Your task to perform on an android device: Go to Reddit.com Image 0: 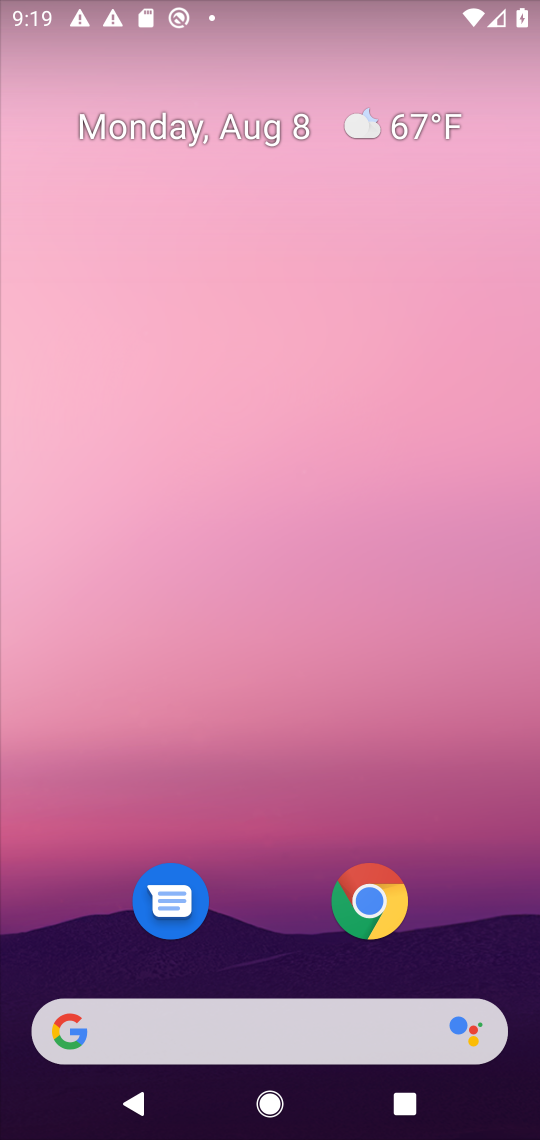
Step 0: click (377, 896)
Your task to perform on an android device: Go to Reddit.com Image 1: 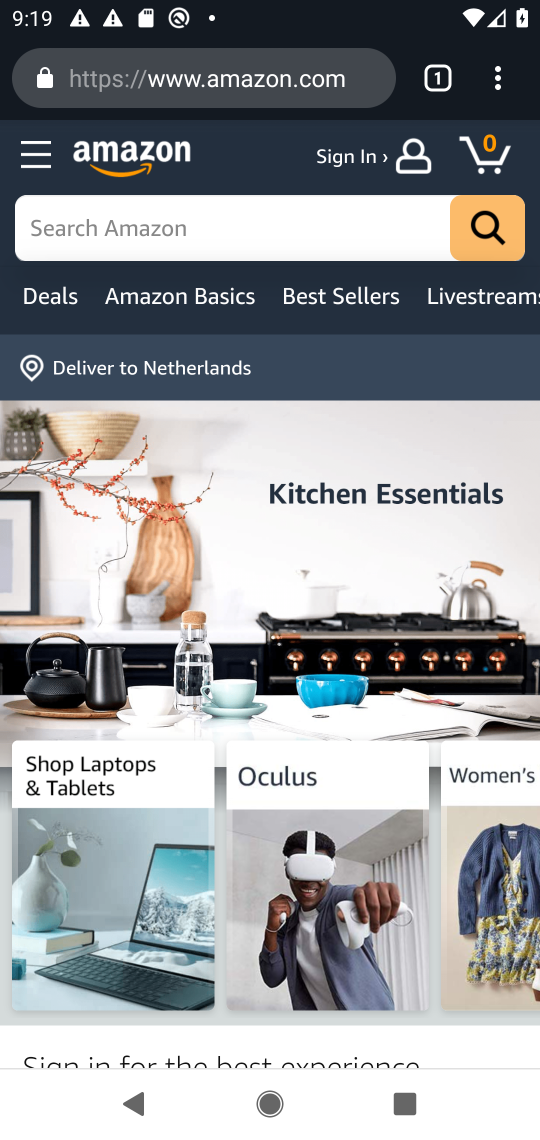
Step 1: click (229, 63)
Your task to perform on an android device: Go to Reddit.com Image 2: 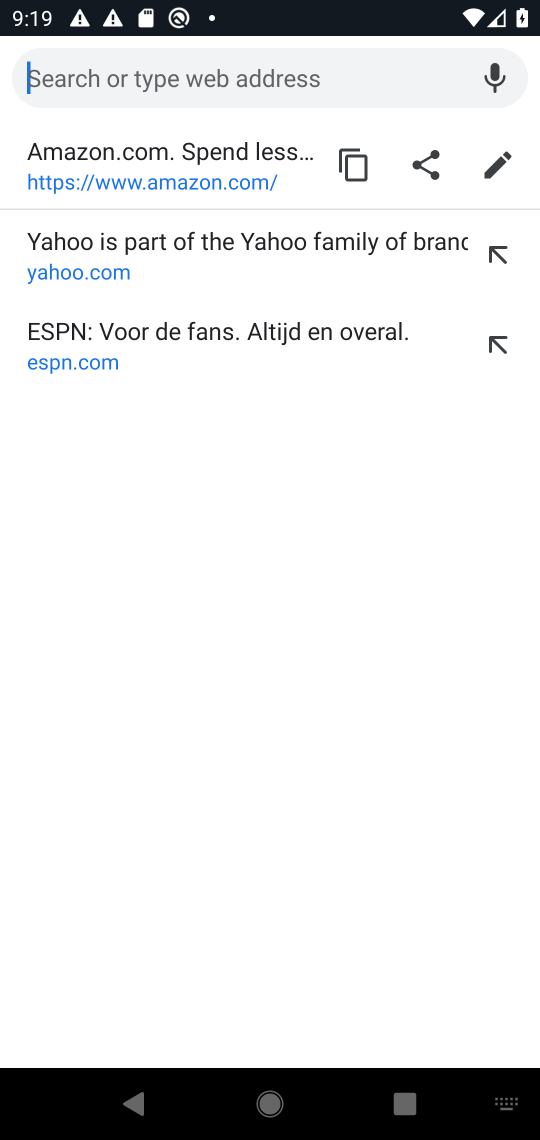
Step 2: type "www.reddit.com"
Your task to perform on an android device: Go to Reddit.com Image 3: 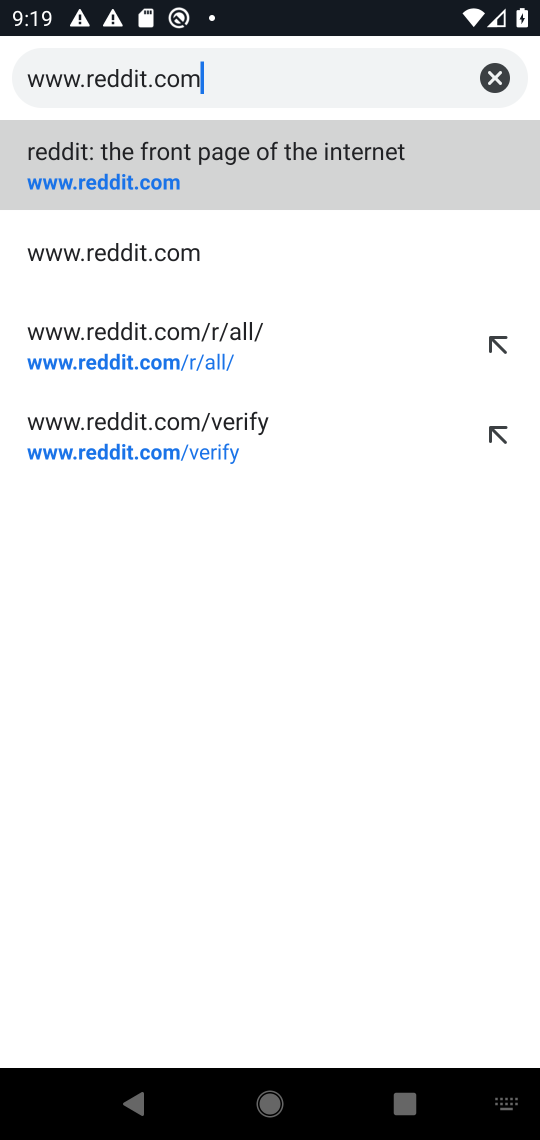
Step 3: click (118, 162)
Your task to perform on an android device: Go to Reddit.com Image 4: 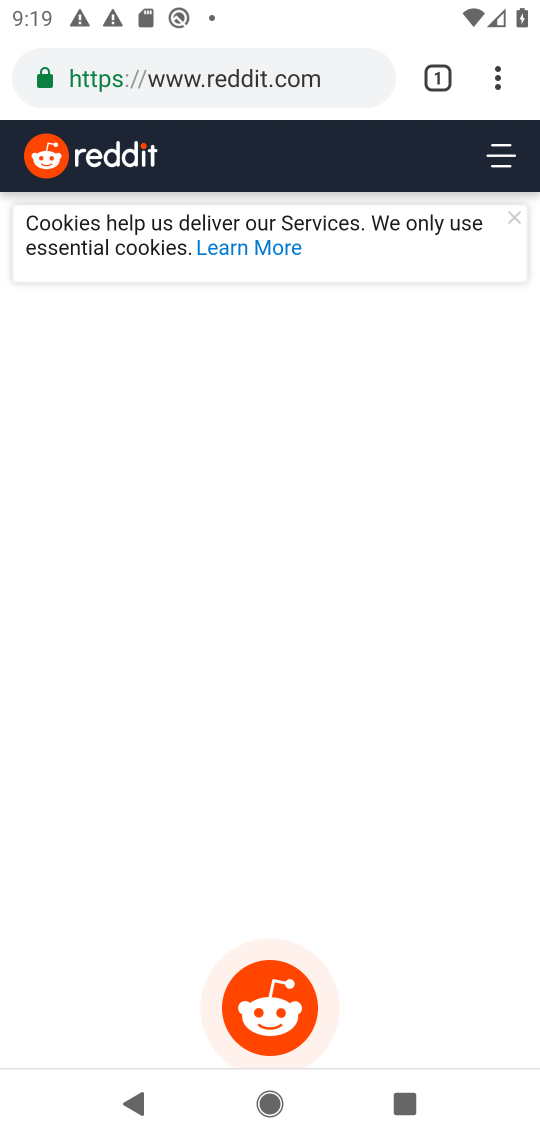
Step 4: task complete